Your task to perform on an android device: Show me recent news Image 0: 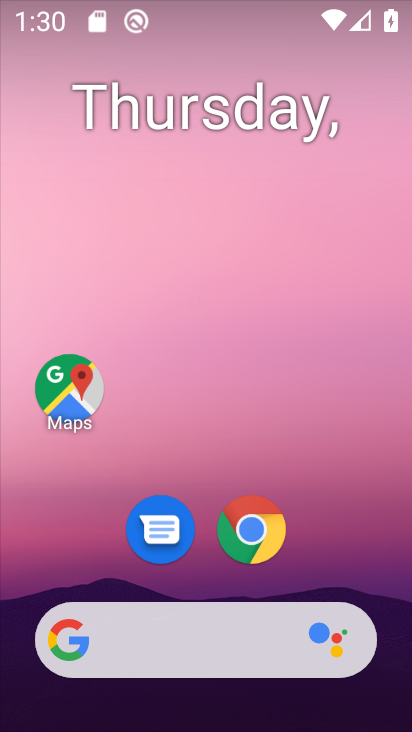
Step 0: drag from (311, 535) to (377, 41)
Your task to perform on an android device: Show me recent news Image 1: 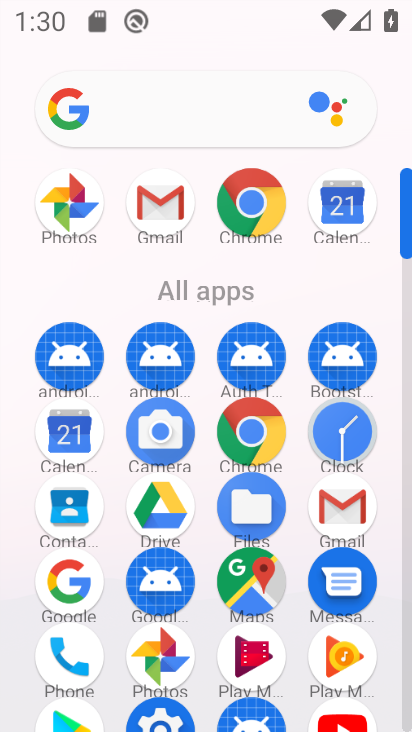
Step 1: click (244, 437)
Your task to perform on an android device: Show me recent news Image 2: 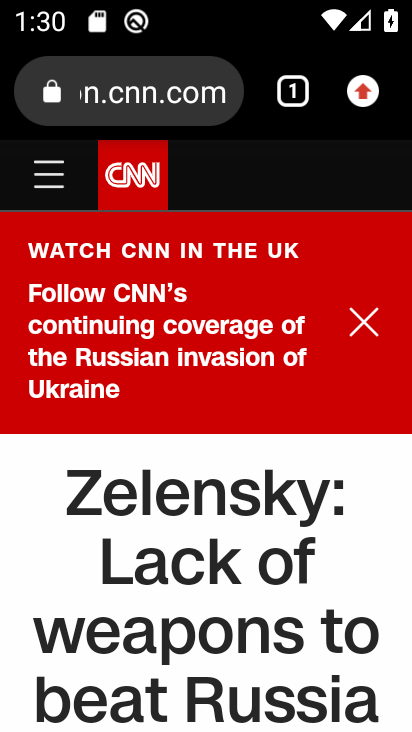
Step 2: click (205, 91)
Your task to perform on an android device: Show me recent news Image 3: 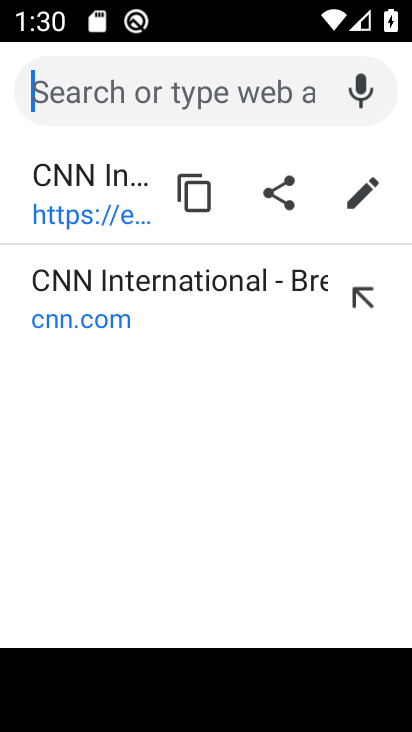
Step 3: type "news"
Your task to perform on an android device: Show me recent news Image 4: 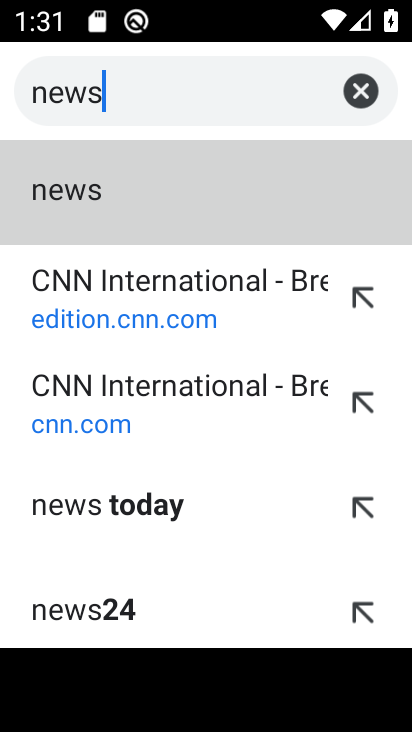
Step 4: click (53, 184)
Your task to perform on an android device: Show me recent news Image 5: 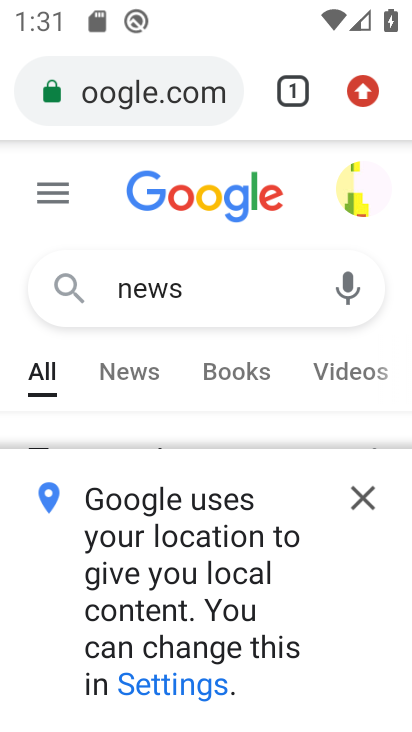
Step 5: click (372, 495)
Your task to perform on an android device: Show me recent news Image 6: 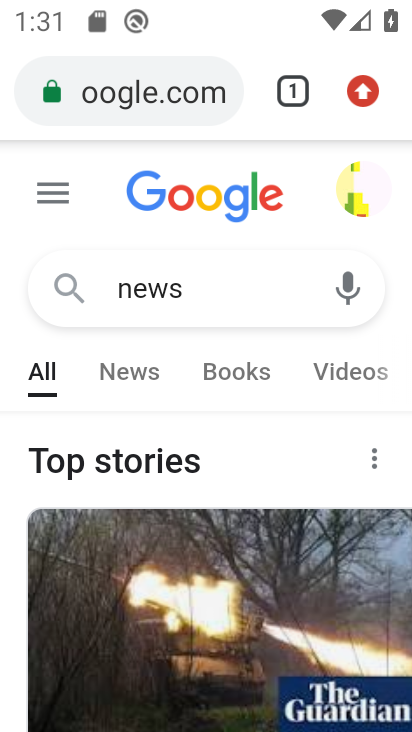
Step 6: click (139, 368)
Your task to perform on an android device: Show me recent news Image 7: 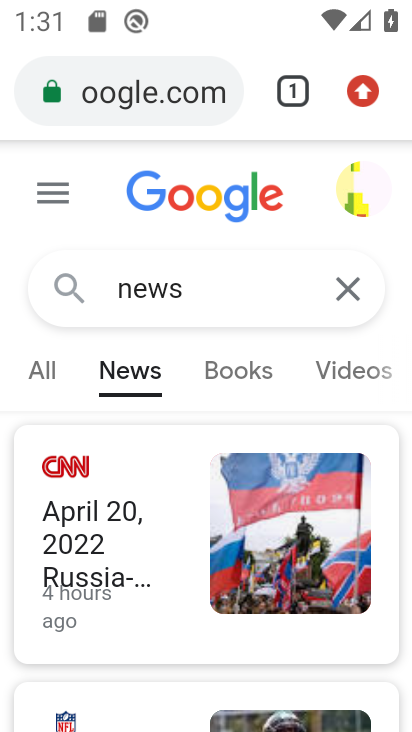
Step 7: task complete